Your task to perform on an android device: Show me the alarms in the clock app Image 0: 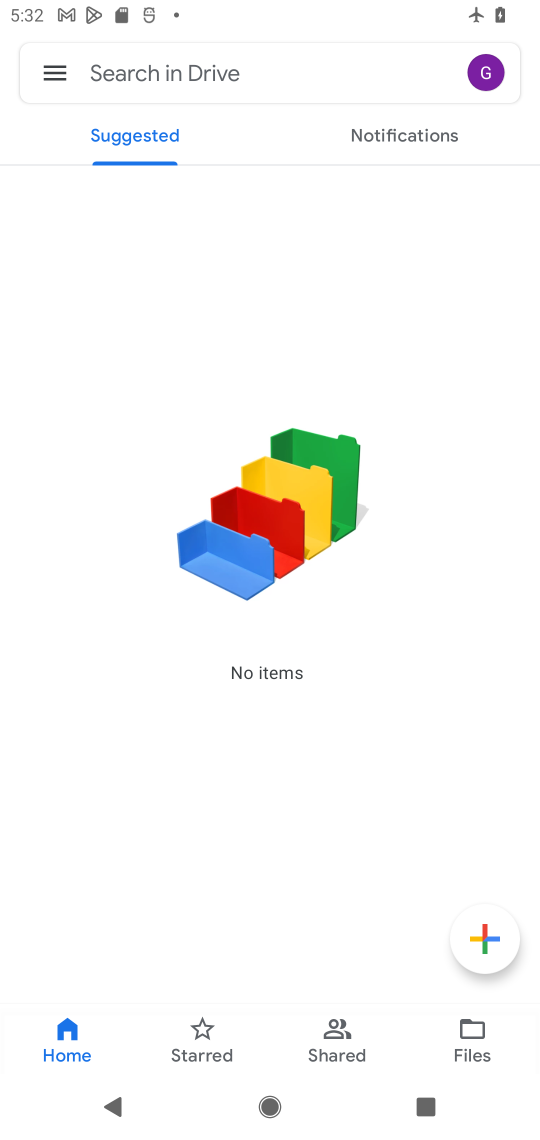
Step 0: press home button
Your task to perform on an android device: Show me the alarms in the clock app Image 1: 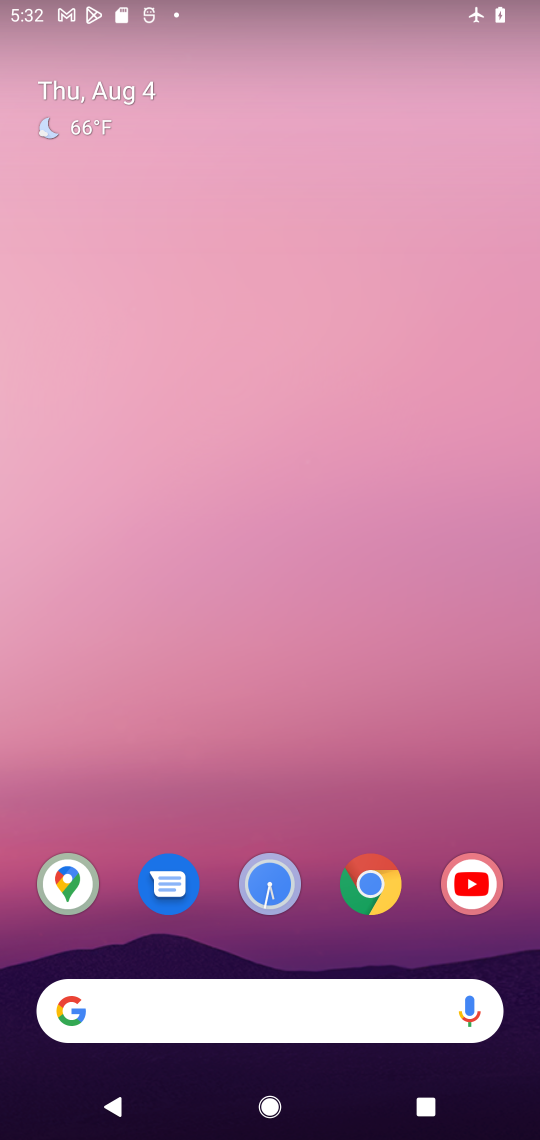
Step 1: click (203, 943)
Your task to perform on an android device: Show me the alarms in the clock app Image 2: 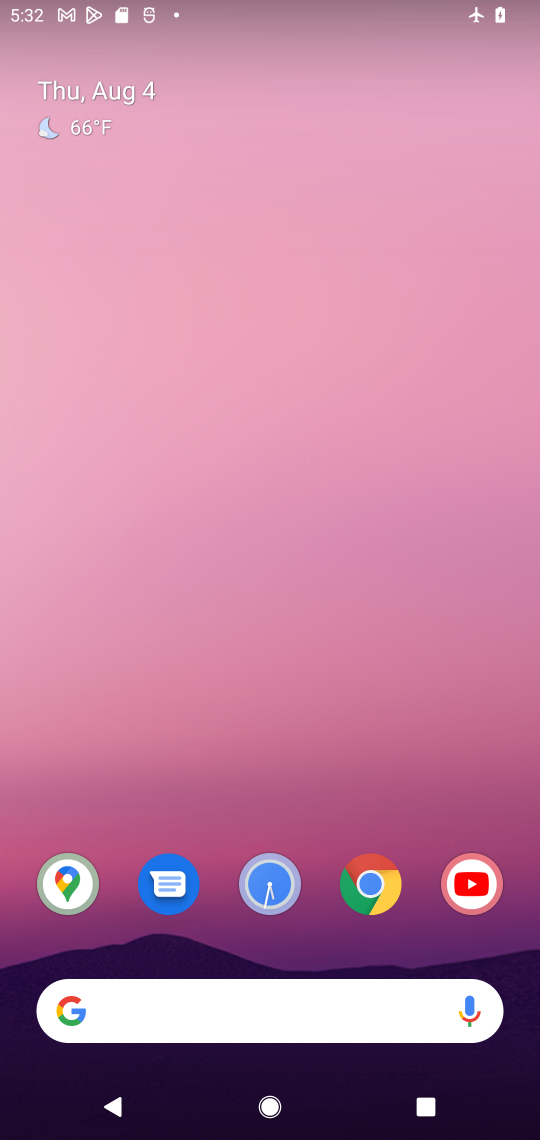
Step 2: click (269, 896)
Your task to perform on an android device: Show me the alarms in the clock app Image 3: 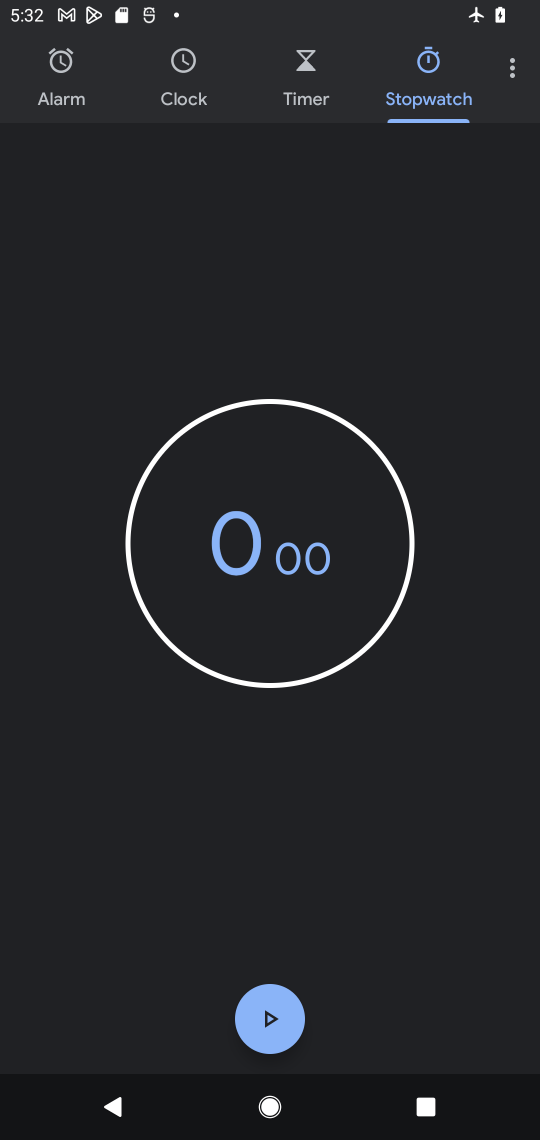
Step 3: click (66, 89)
Your task to perform on an android device: Show me the alarms in the clock app Image 4: 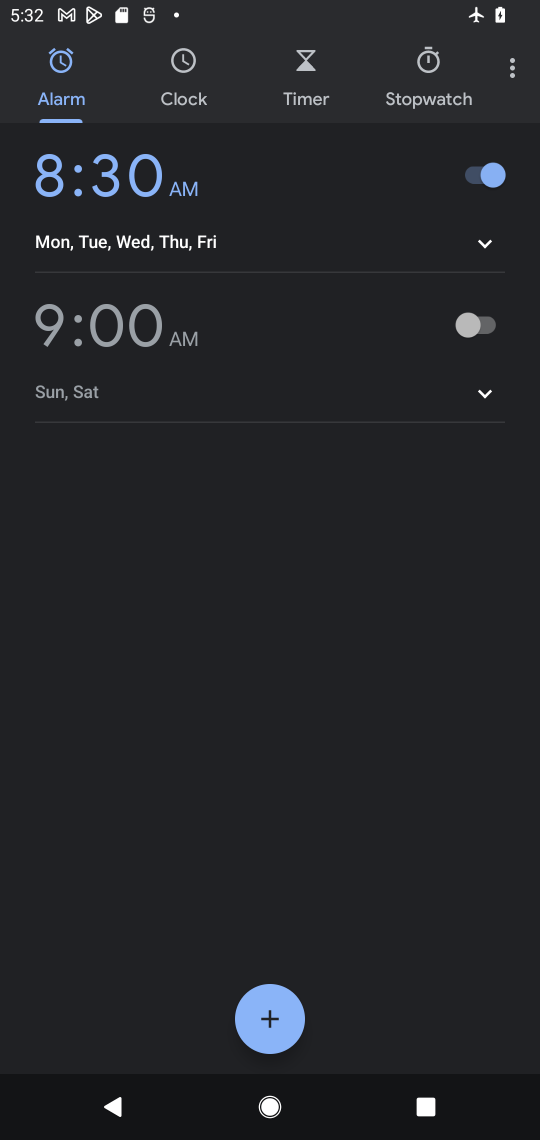
Step 4: task complete